Your task to perform on an android device: Open Google Image 0: 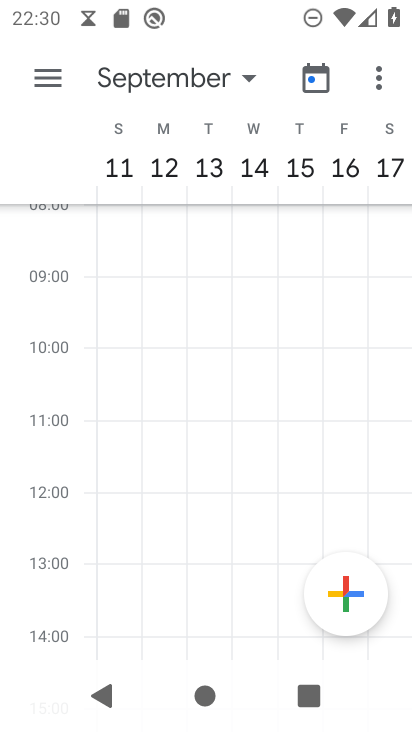
Step 0: press home button
Your task to perform on an android device: Open Google Image 1: 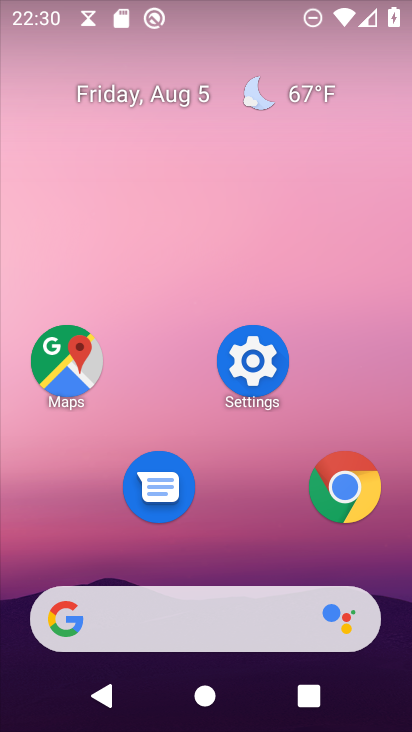
Step 1: drag from (187, 595) to (282, 119)
Your task to perform on an android device: Open Google Image 2: 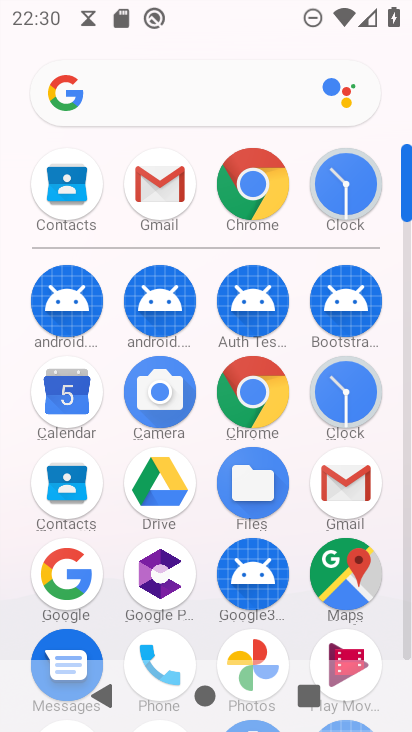
Step 2: click (76, 582)
Your task to perform on an android device: Open Google Image 3: 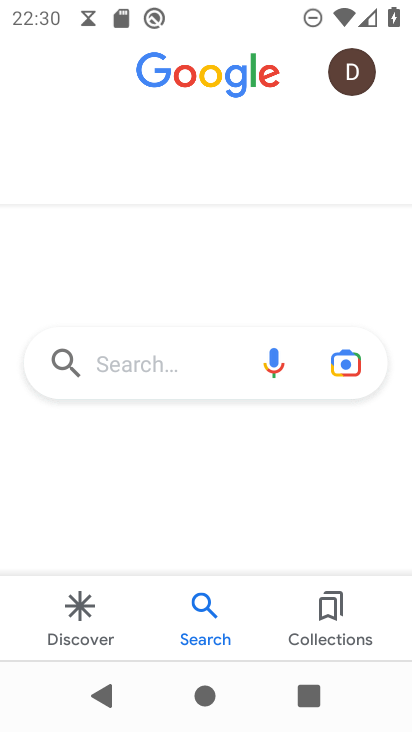
Step 3: task complete